Your task to perform on an android device: turn off airplane mode Image 0: 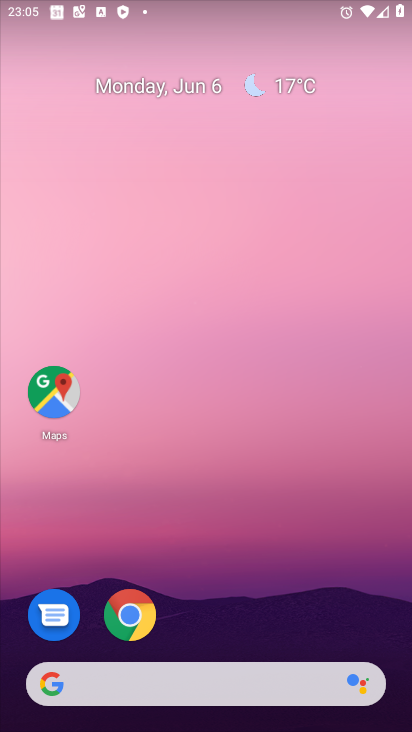
Step 0: drag from (399, 709) to (284, 13)
Your task to perform on an android device: turn off airplane mode Image 1: 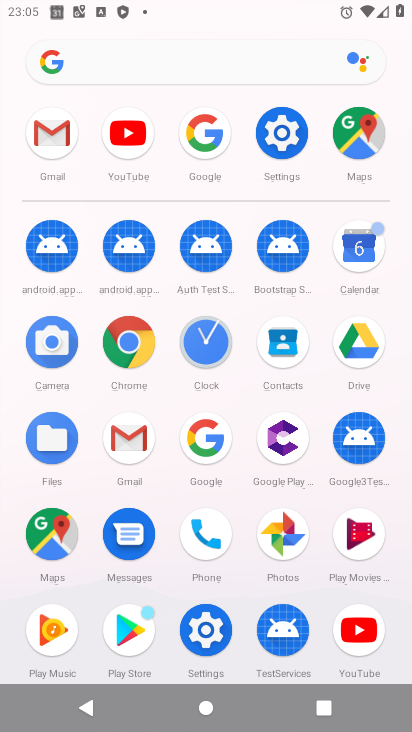
Step 1: click (283, 148)
Your task to perform on an android device: turn off airplane mode Image 2: 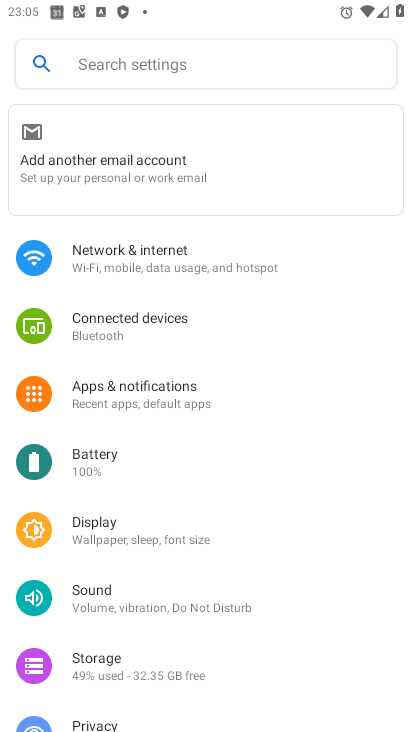
Step 2: click (115, 264)
Your task to perform on an android device: turn off airplane mode Image 3: 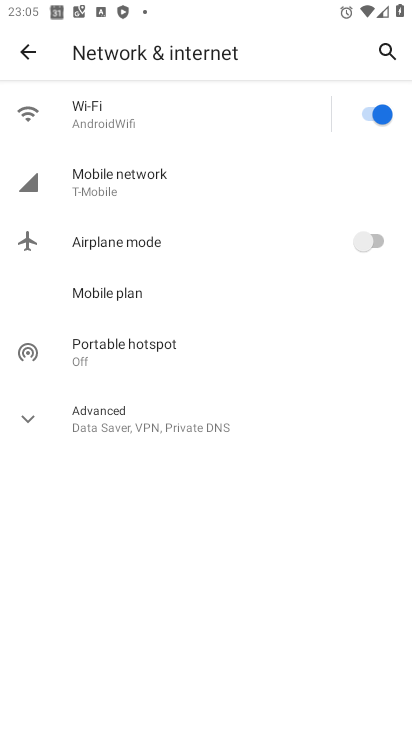
Step 3: task complete